Your task to perform on an android device: change the upload size in google photos Image 0: 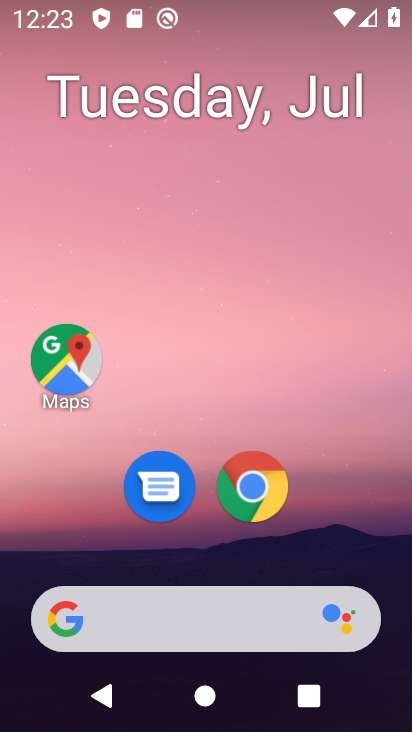
Step 0: drag from (360, 518) to (379, 93)
Your task to perform on an android device: change the upload size in google photos Image 1: 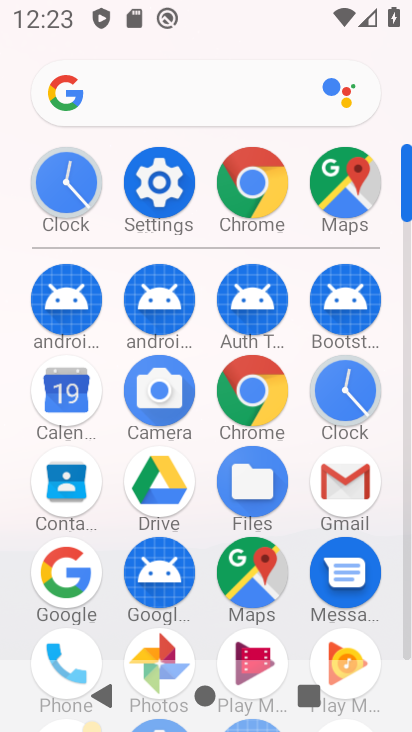
Step 1: drag from (391, 526) to (407, 250)
Your task to perform on an android device: change the upload size in google photos Image 2: 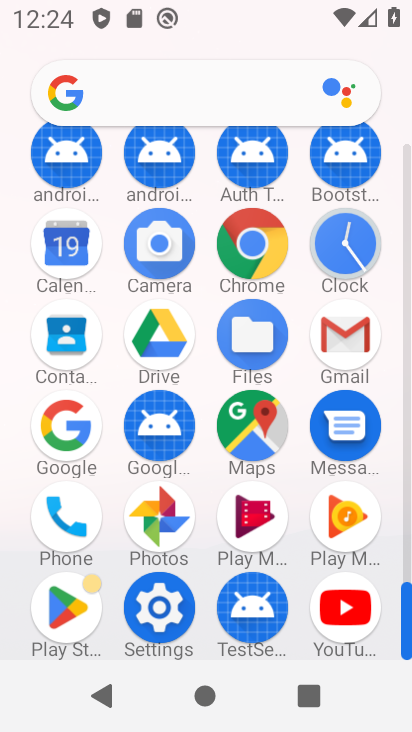
Step 2: click (162, 512)
Your task to perform on an android device: change the upload size in google photos Image 3: 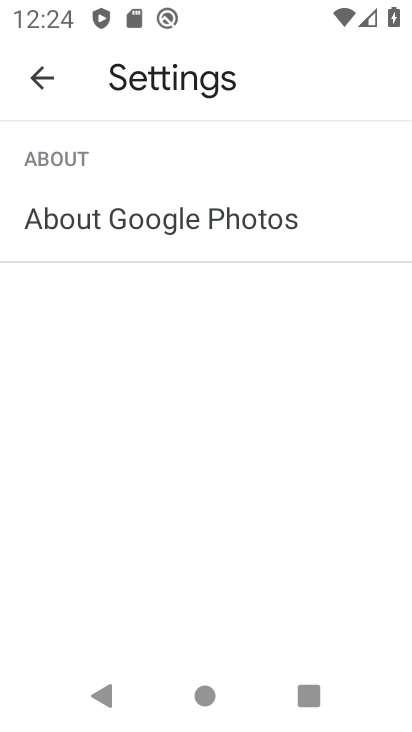
Step 3: task complete